Your task to perform on an android device: turn on data saver in the chrome app Image 0: 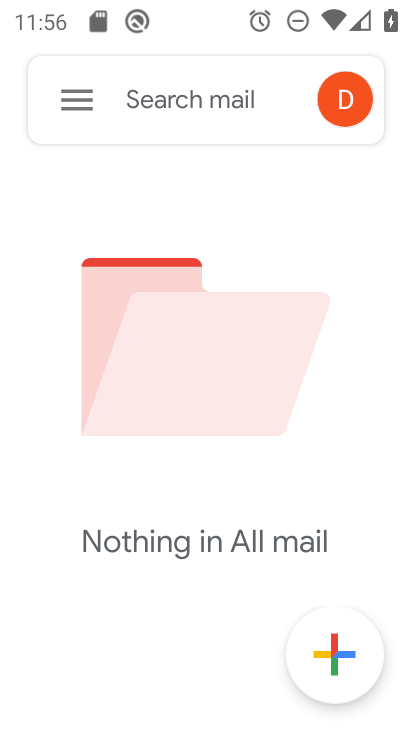
Step 0: press home button
Your task to perform on an android device: turn on data saver in the chrome app Image 1: 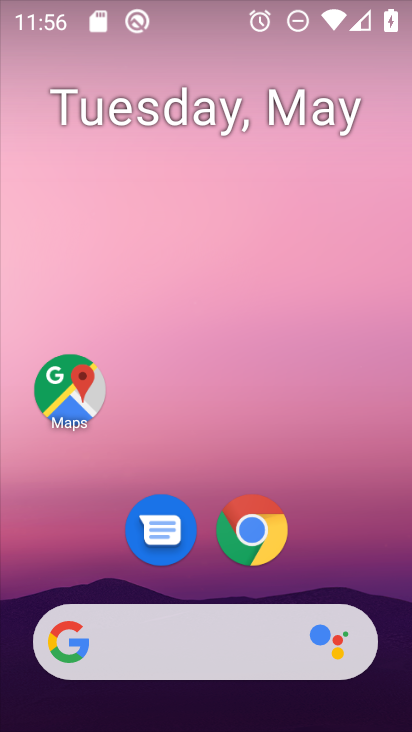
Step 1: click (251, 520)
Your task to perform on an android device: turn on data saver in the chrome app Image 2: 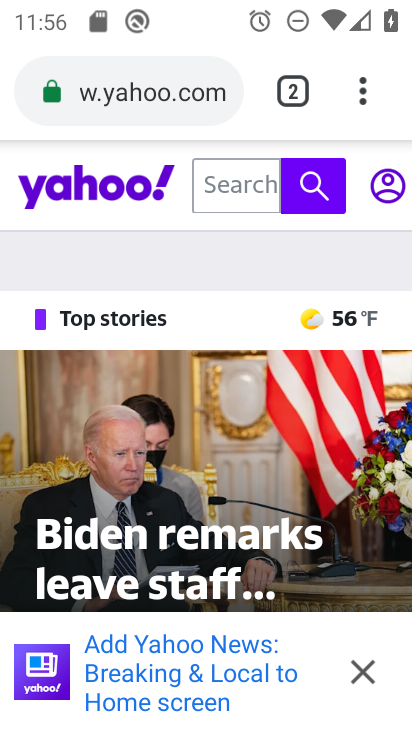
Step 2: drag from (368, 82) to (206, 559)
Your task to perform on an android device: turn on data saver in the chrome app Image 3: 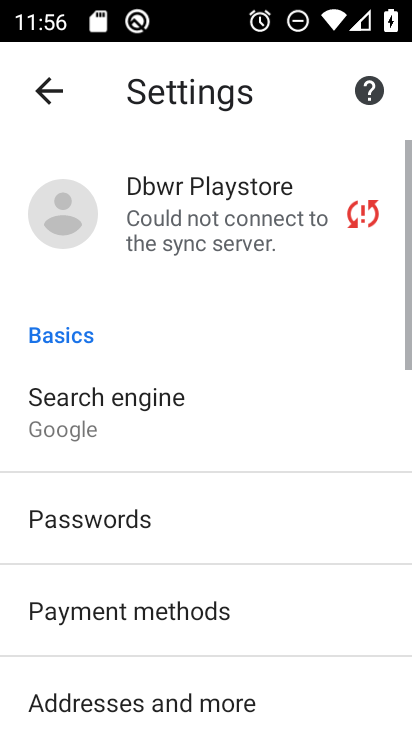
Step 3: drag from (186, 565) to (325, 122)
Your task to perform on an android device: turn on data saver in the chrome app Image 4: 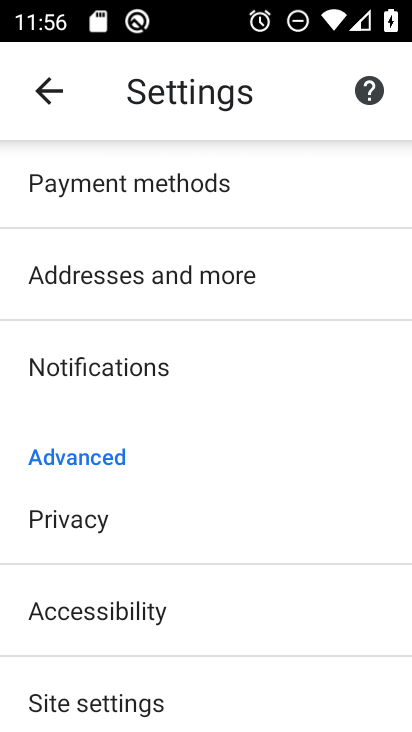
Step 4: drag from (154, 545) to (401, 213)
Your task to perform on an android device: turn on data saver in the chrome app Image 5: 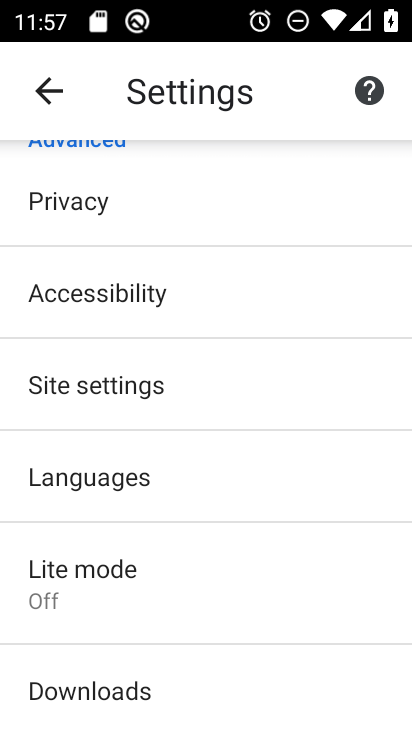
Step 5: click (135, 389)
Your task to perform on an android device: turn on data saver in the chrome app Image 6: 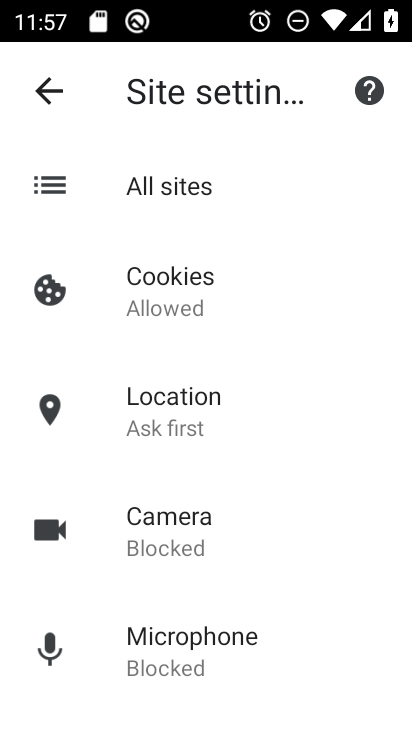
Step 6: click (54, 99)
Your task to perform on an android device: turn on data saver in the chrome app Image 7: 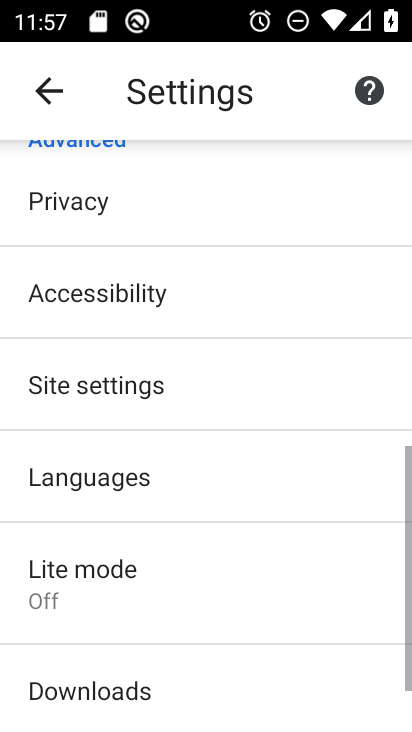
Step 7: drag from (195, 652) to (359, 317)
Your task to perform on an android device: turn on data saver in the chrome app Image 8: 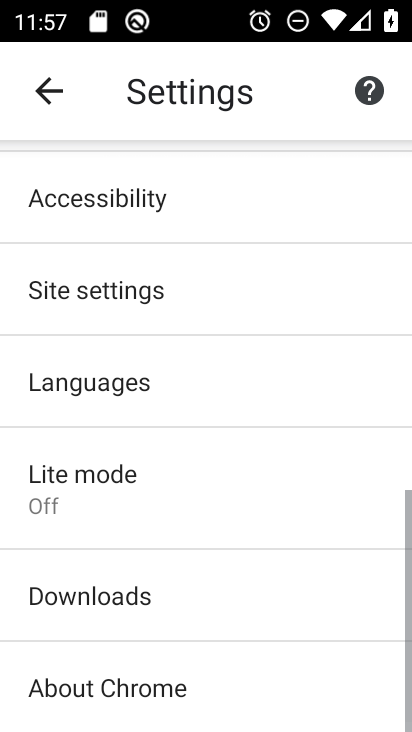
Step 8: click (120, 500)
Your task to perform on an android device: turn on data saver in the chrome app Image 9: 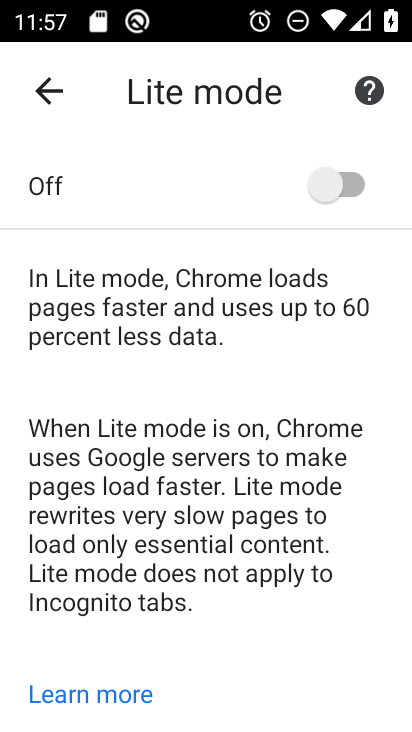
Step 9: click (328, 188)
Your task to perform on an android device: turn on data saver in the chrome app Image 10: 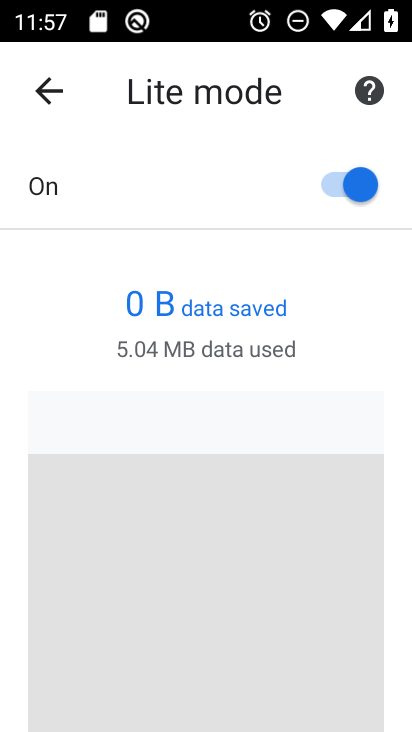
Step 10: task complete